Your task to perform on an android device: Turn on the flashlight Image 0: 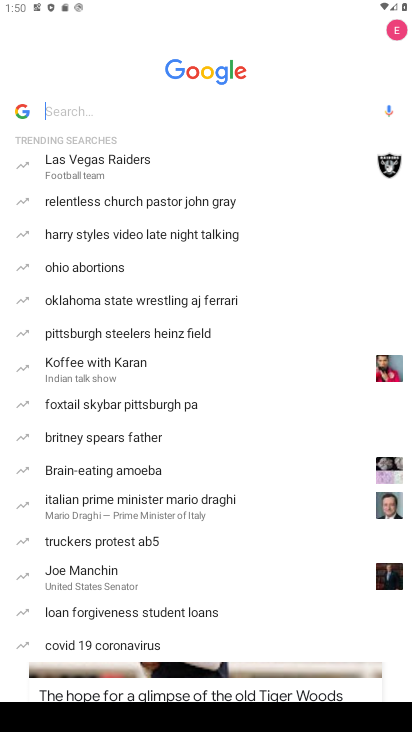
Step 0: press home button
Your task to perform on an android device: Turn on the flashlight Image 1: 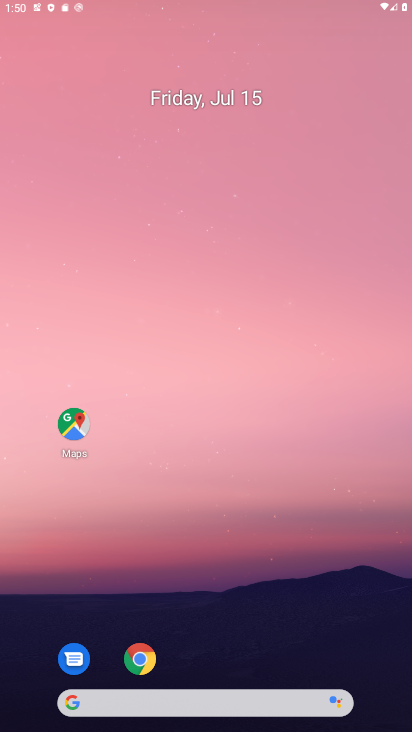
Step 1: drag from (187, 627) to (190, 260)
Your task to perform on an android device: Turn on the flashlight Image 2: 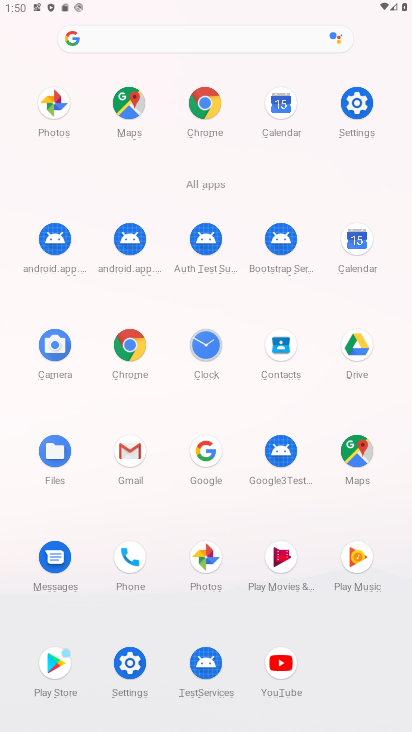
Step 2: click (349, 112)
Your task to perform on an android device: Turn on the flashlight Image 3: 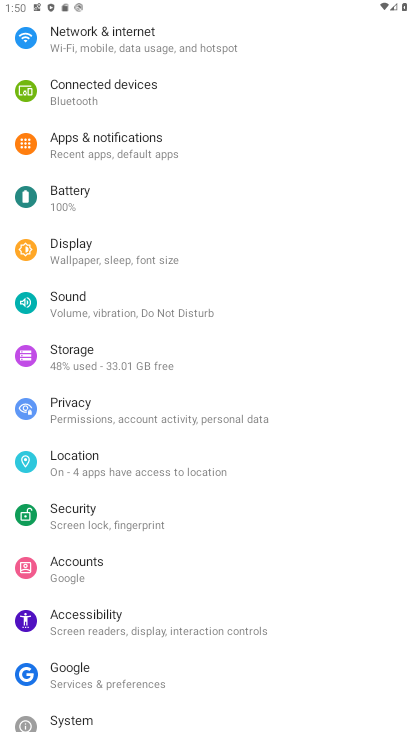
Step 3: task complete